Your task to perform on an android device: turn off javascript in the chrome app Image 0: 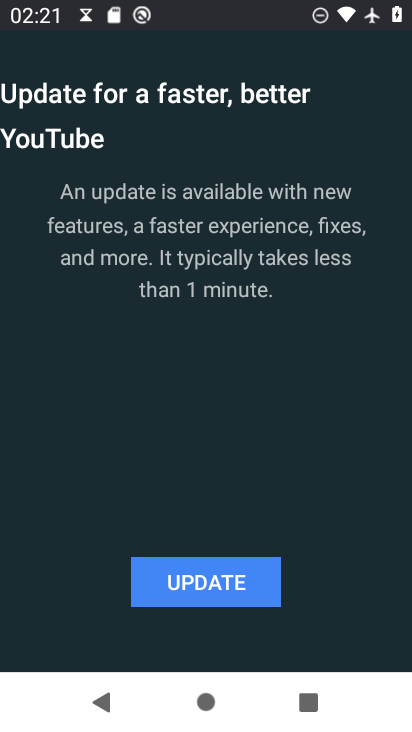
Step 0: press home button
Your task to perform on an android device: turn off javascript in the chrome app Image 1: 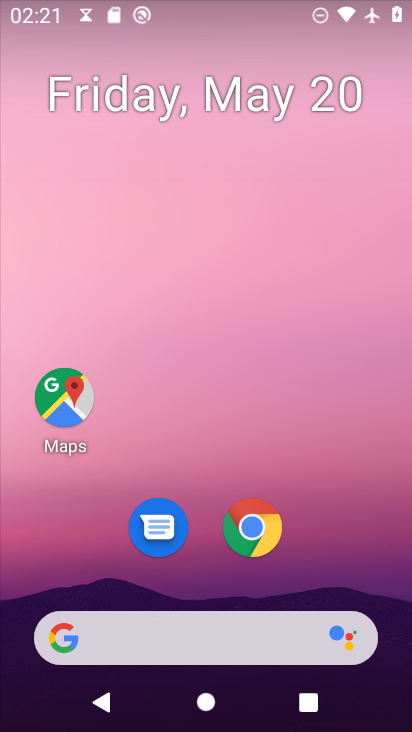
Step 1: click (255, 536)
Your task to perform on an android device: turn off javascript in the chrome app Image 2: 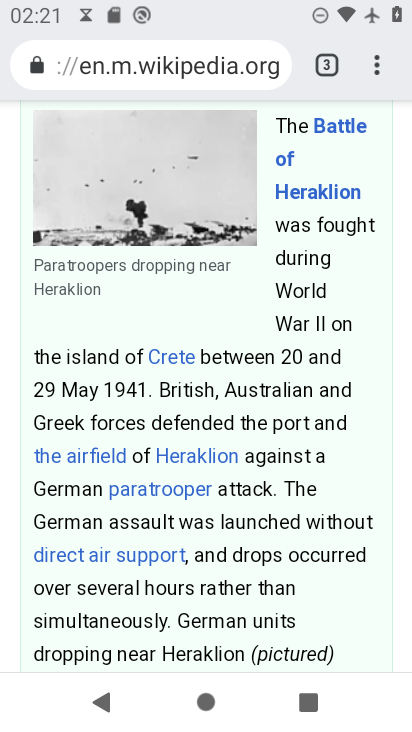
Step 2: drag from (375, 67) to (266, 574)
Your task to perform on an android device: turn off javascript in the chrome app Image 3: 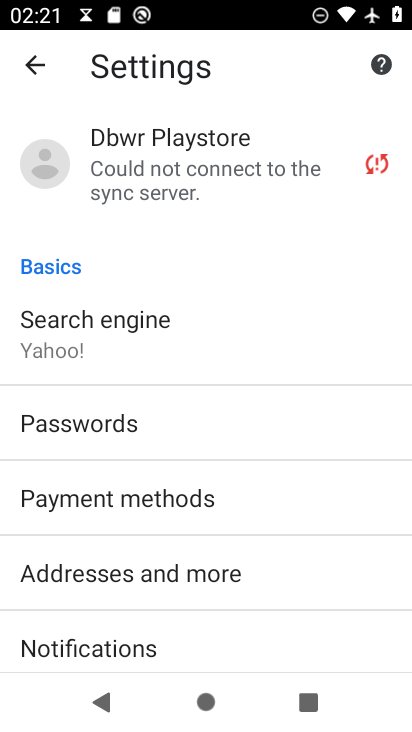
Step 3: drag from (209, 613) to (253, 265)
Your task to perform on an android device: turn off javascript in the chrome app Image 4: 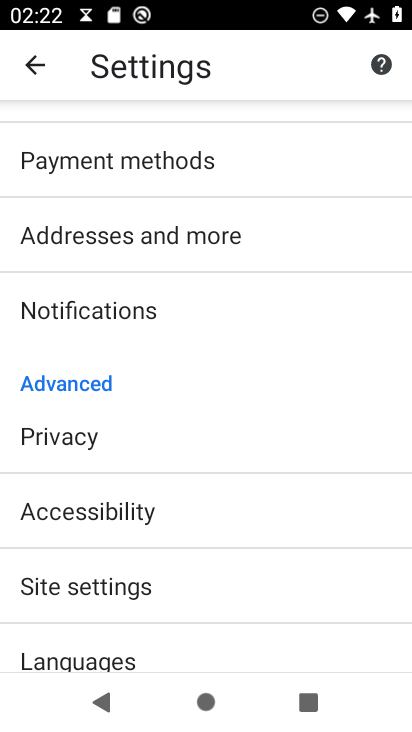
Step 4: click (109, 586)
Your task to perform on an android device: turn off javascript in the chrome app Image 5: 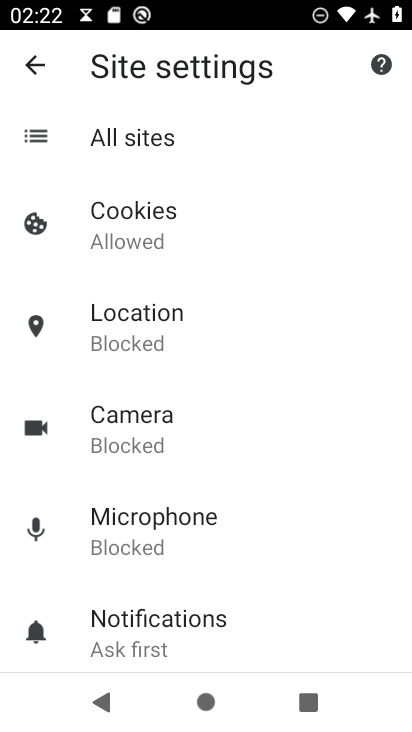
Step 5: drag from (251, 587) to (356, 119)
Your task to perform on an android device: turn off javascript in the chrome app Image 6: 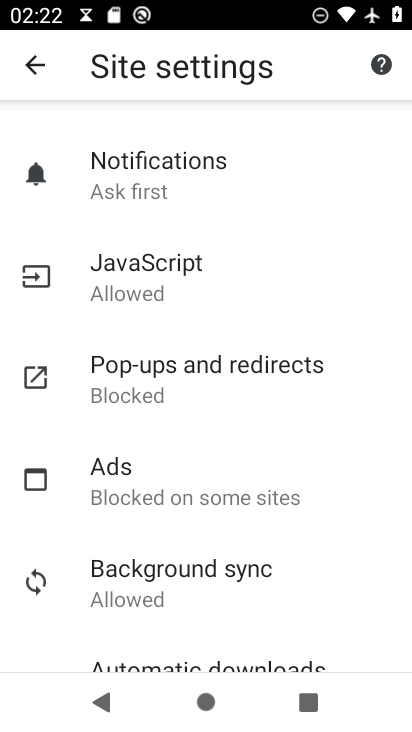
Step 6: click (148, 280)
Your task to perform on an android device: turn off javascript in the chrome app Image 7: 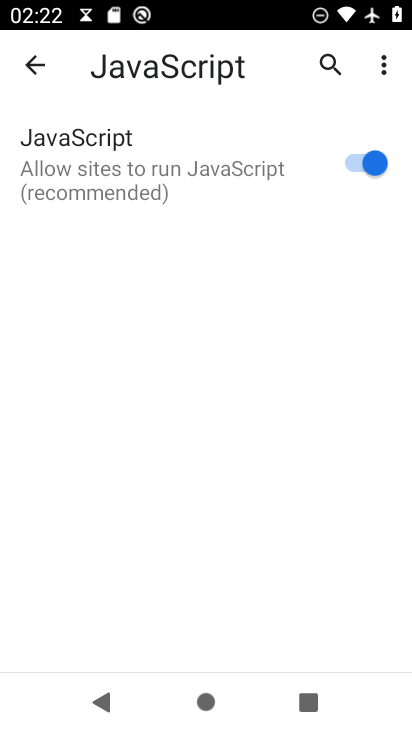
Step 7: click (360, 162)
Your task to perform on an android device: turn off javascript in the chrome app Image 8: 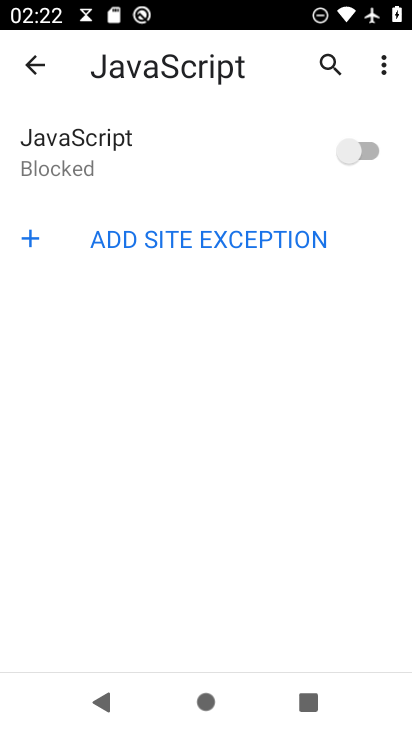
Step 8: task complete